Your task to perform on an android device: check android version Image 0: 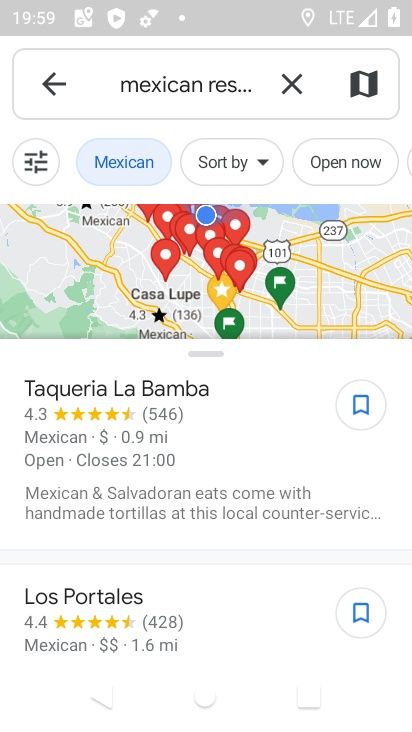
Step 0: press home button
Your task to perform on an android device: check android version Image 1: 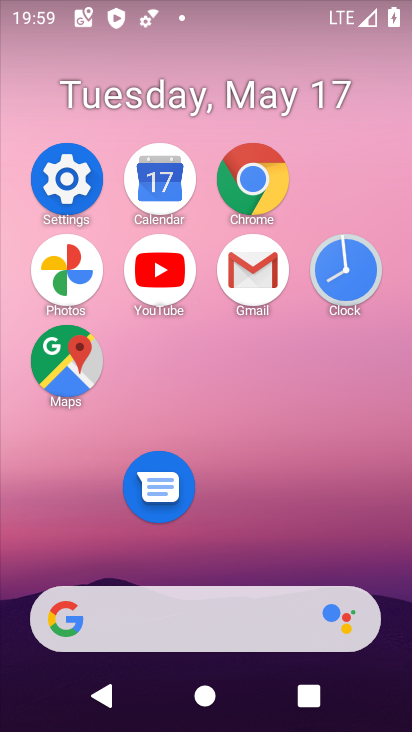
Step 1: click (69, 190)
Your task to perform on an android device: check android version Image 2: 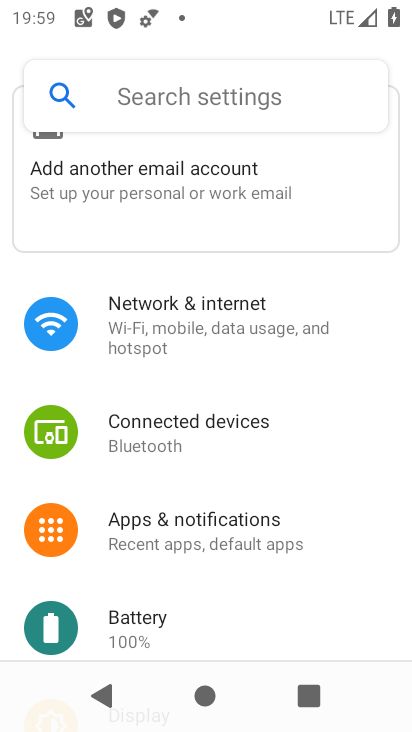
Step 2: drag from (239, 523) to (275, 150)
Your task to perform on an android device: check android version Image 3: 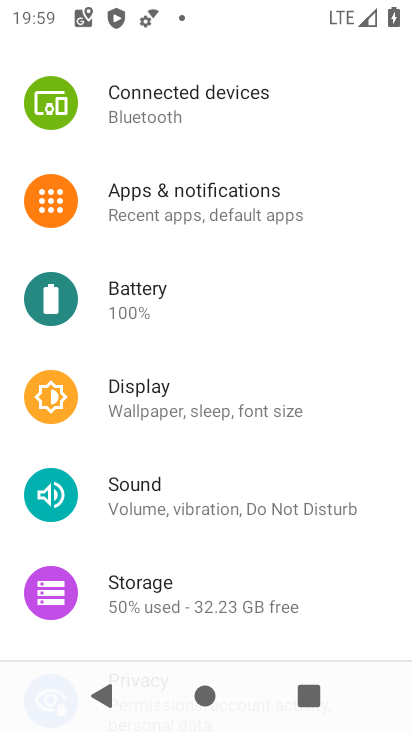
Step 3: drag from (220, 530) to (246, 148)
Your task to perform on an android device: check android version Image 4: 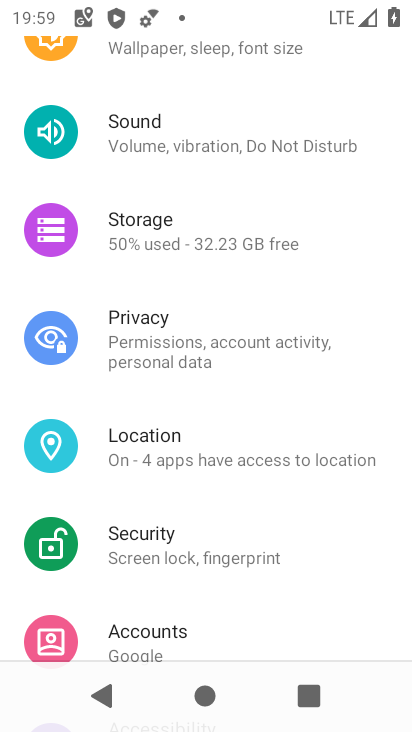
Step 4: drag from (256, 497) to (294, 100)
Your task to perform on an android device: check android version Image 5: 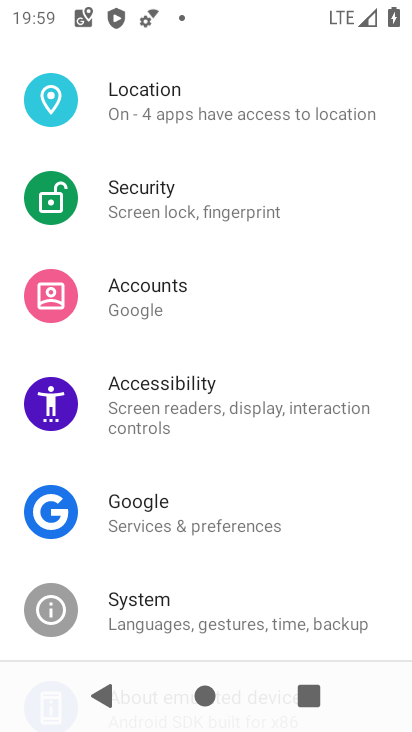
Step 5: drag from (254, 561) to (277, 148)
Your task to perform on an android device: check android version Image 6: 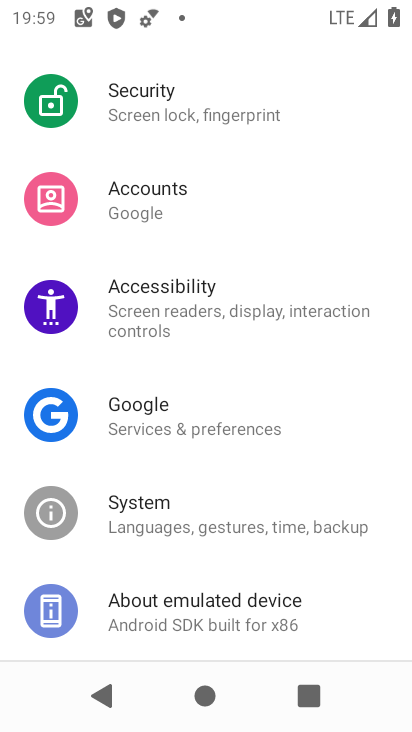
Step 6: click (237, 596)
Your task to perform on an android device: check android version Image 7: 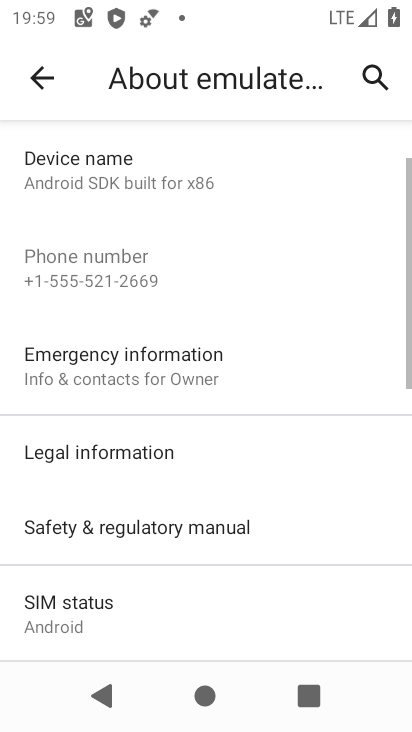
Step 7: task complete